Your task to perform on an android device: Clear all items from cart on target.com. Add "logitech g pro" to the cart on target.com, then select checkout. Image 0: 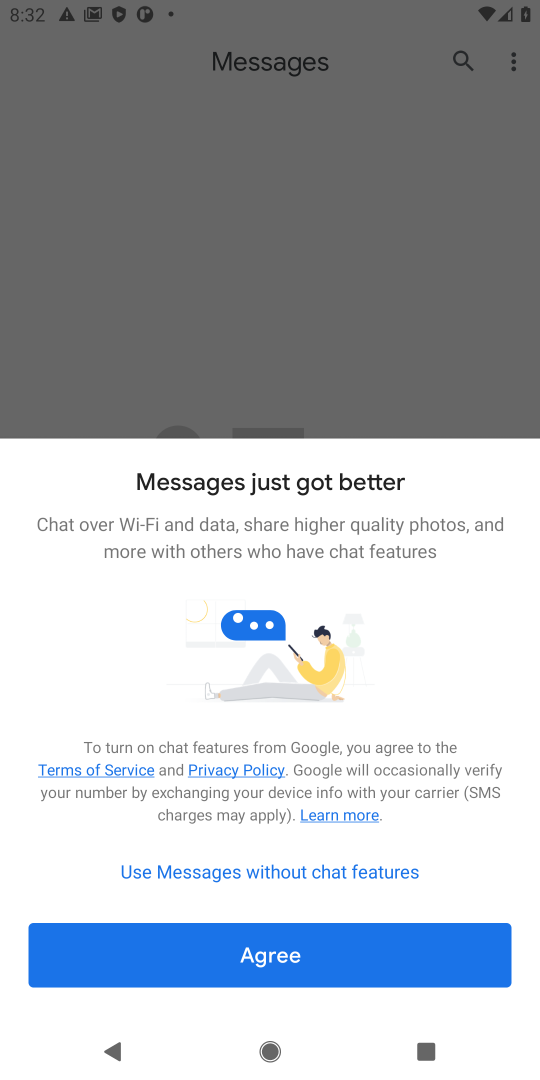
Step 0: press home button
Your task to perform on an android device: Clear all items from cart on target.com. Add "logitech g pro" to the cart on target.com, then select checkout. Image 1: 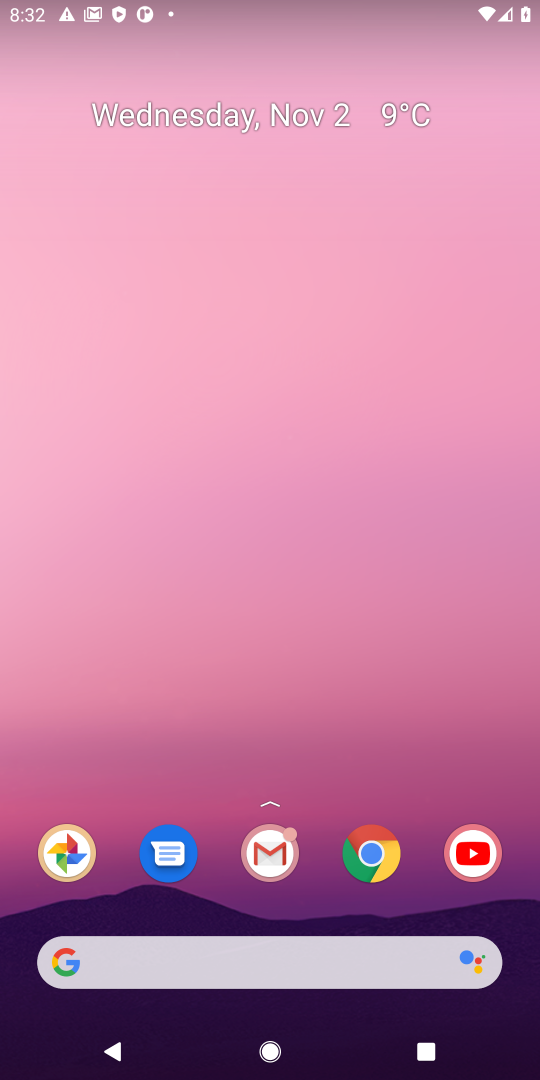
Step 1: click (376, 855)
Your task to perform on an android device: Clear all items from cart on target.com. Add "logitech g pro" to the cart on target.com, then select checkout. Image 2: 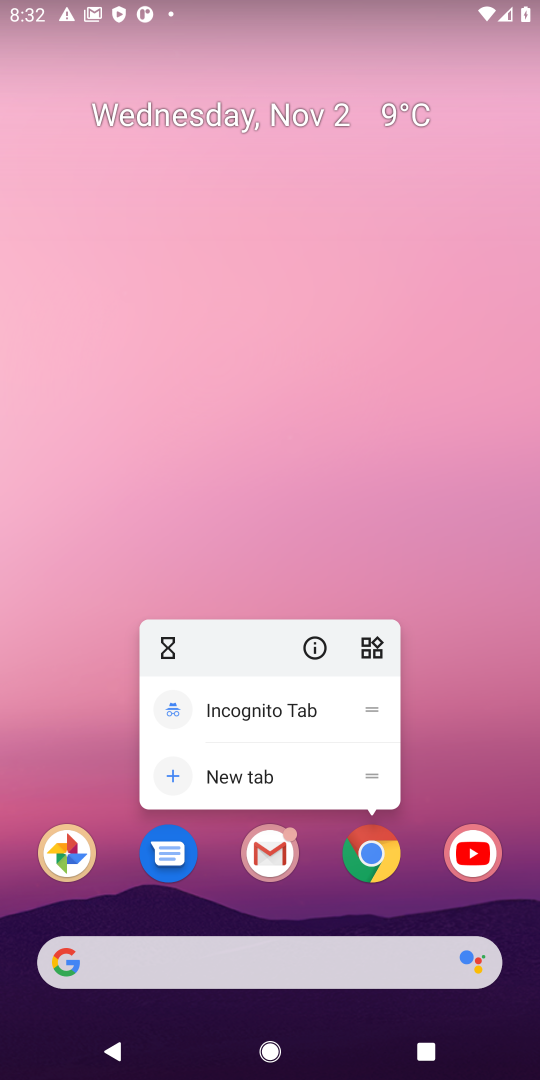
Step 2: click (376, 857)
Your task to perform on an android device: Clear all items from cart on target.com. Add "logitech g pro" to the cart on target.com, then select checkout. Image 3: 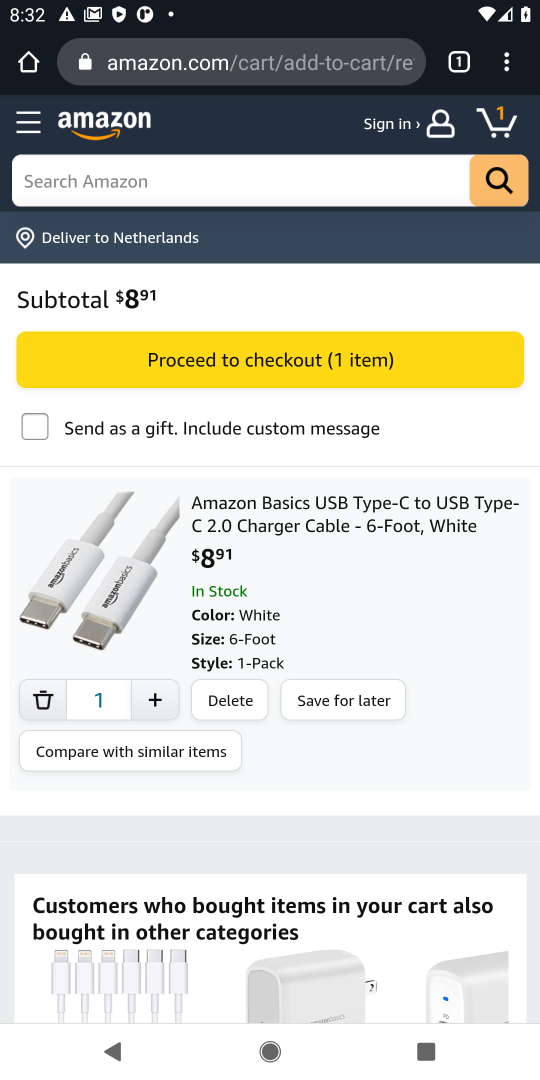
Step 3: click (267, 57)
Your task to perform on an android device: Clear all items from cart on target.com. Add "logitech g pro" to the cart on target.com, then select checkout. Image 4: 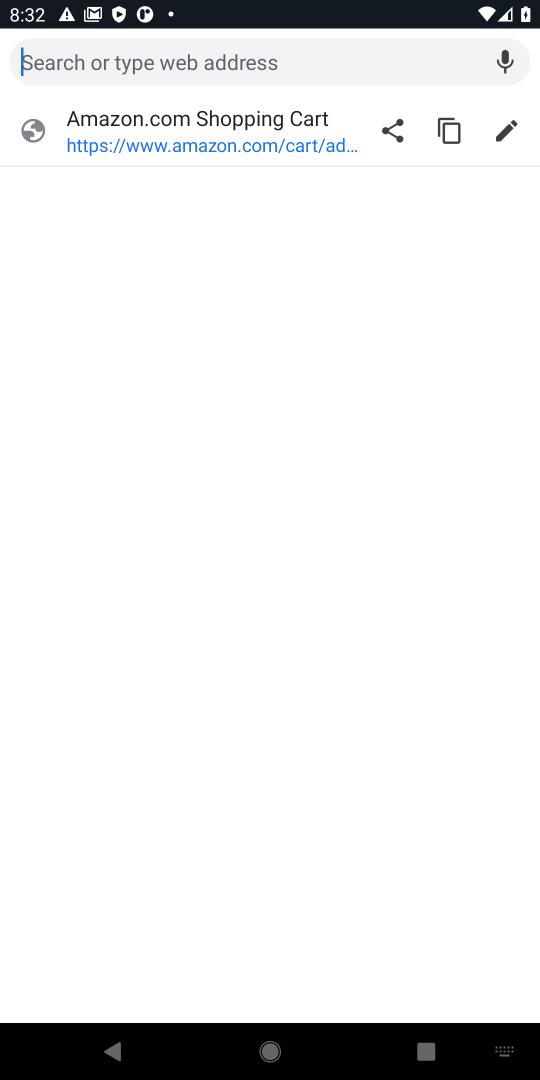
Step 4: type "target.com"
Your task to perform on an android device: Clear all items from cart on target.com. Add "logitech g pro" to the cart on target.com, then select checkout. Image 5: 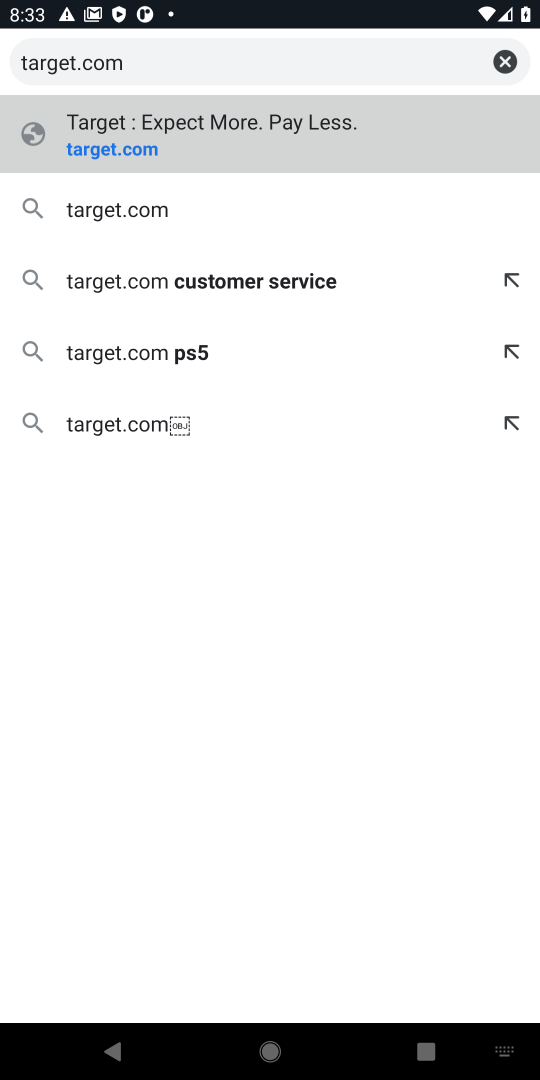
Step 5: press enter
Your task to perform on an android device: Clear all items from cart on target.com. Add "logitech g pro" to the cart on target.com, then select checkout. Image 6: 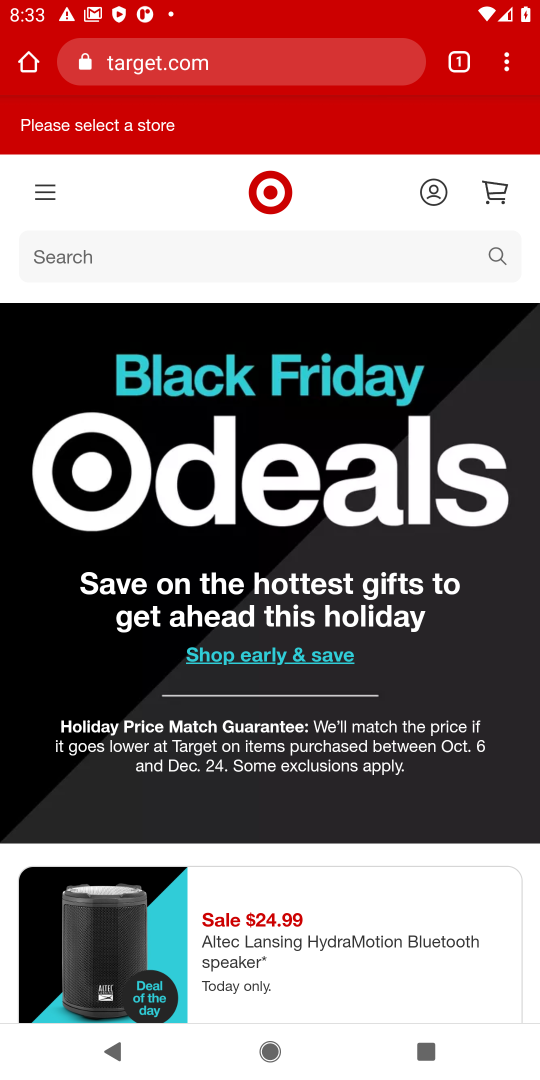
Step 6: click (166, 245)
Your task to perform on an android device: Clear all items from cart on target.com. Add "logitech g pro" to the cart on target.com, then select checkout. Image 7: 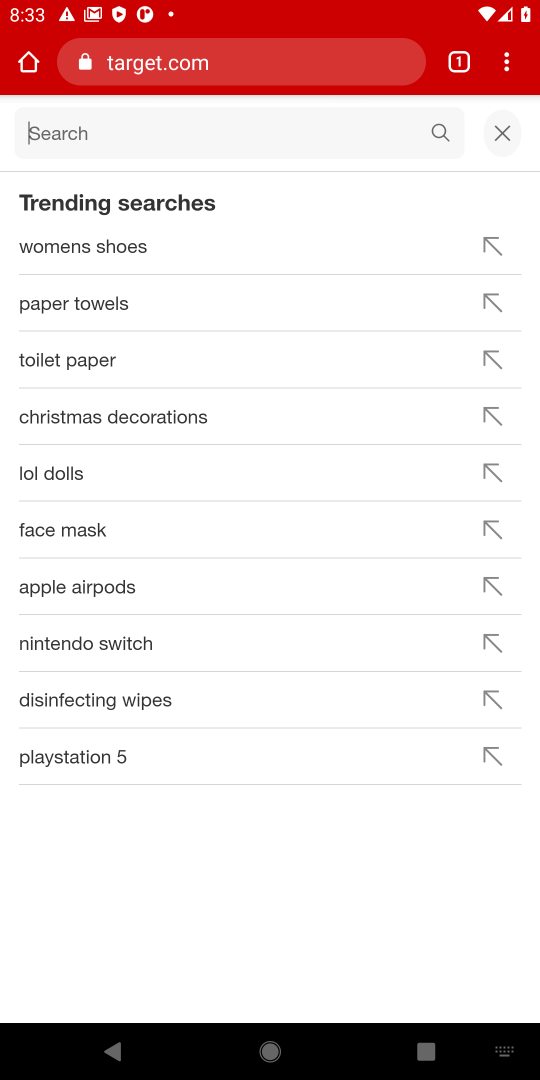
Step 7: type "logitech g pro"
Your task to perform on an android device: Clear all items from cart on target.com. Add "logitech g pro" to the cart on target.com, then select checkout. Image 8: 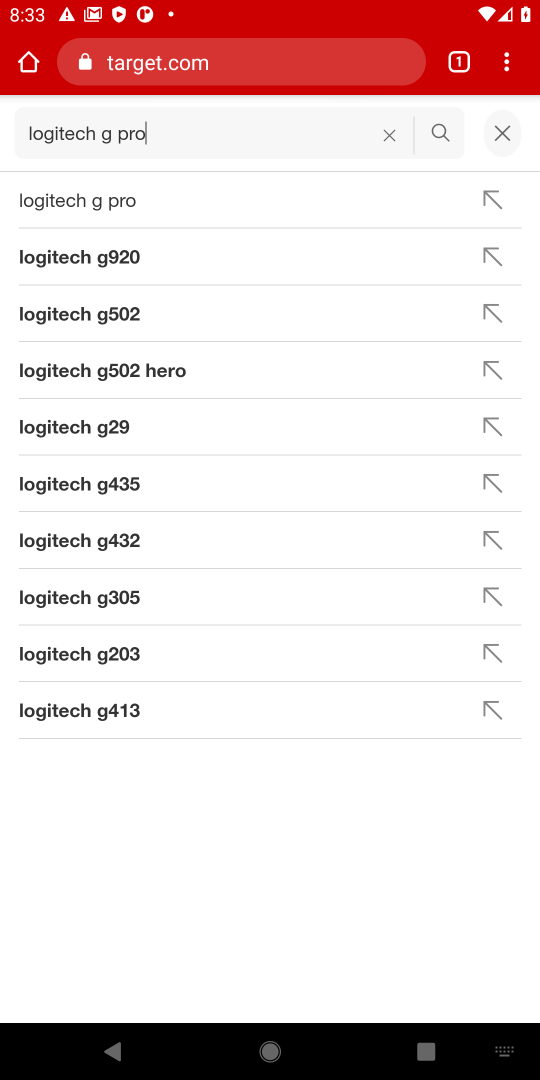
Step 8: press enter
Your task to perform on an android device: Clear all items from cart on target.com. Add "logitech g pro" to the cart on target.com, then select checkout. Image 9: 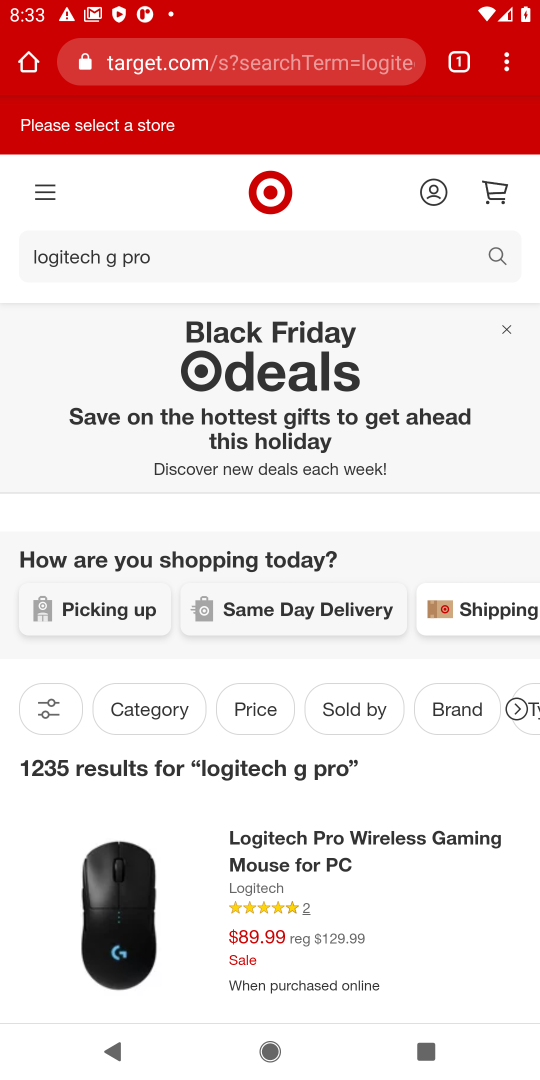
Step 9: task complete